Your task to perform on an android device: change the clock display to show seconds Image 0: 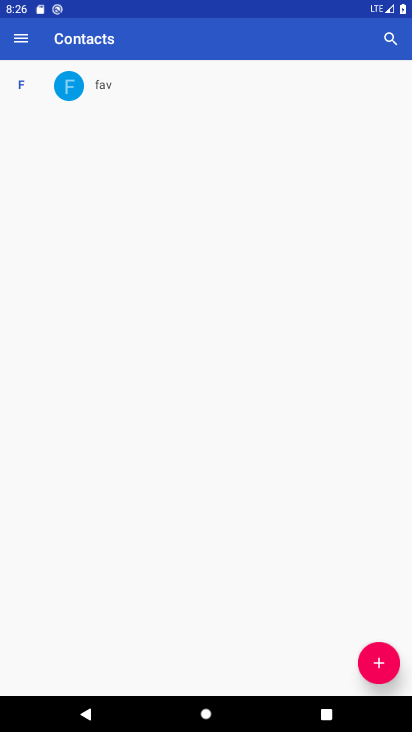
Step 0: press home button
Your task to perform on an android device: change the clock display to show seconds Image 1: 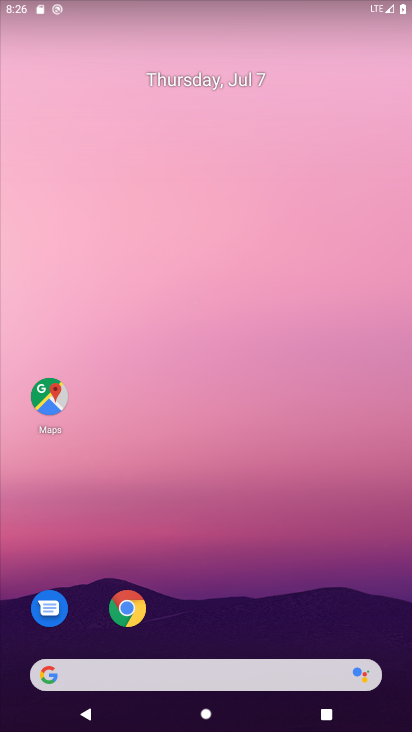
Step 1: drag from (373, 617) to (353, 67)
Your task to perform on an android device: change the clock display to show seconds Image 2: 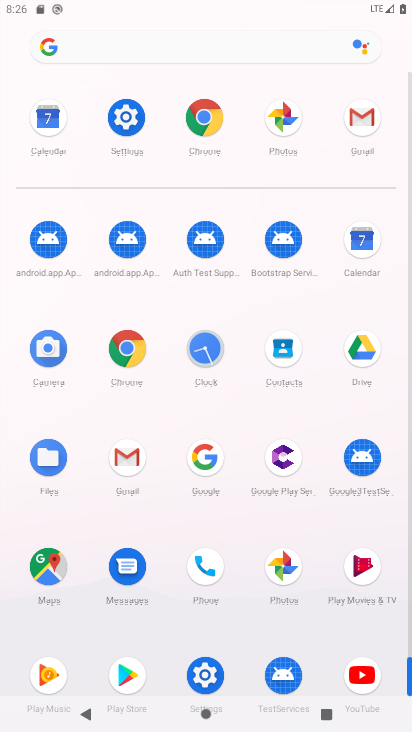
Step 2: click (208, 353)
Your task to perform on an android device: change the clock display to show seconds Image 3: 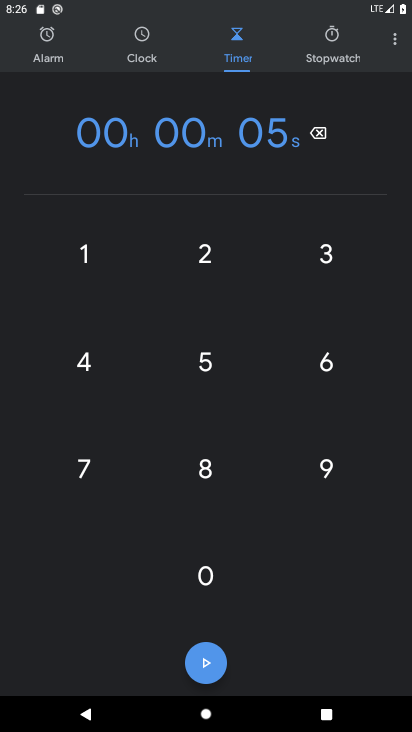
Step 3: click (391, 39)
Your task to perform on an android device: change the clock display to show seconds Image 4: 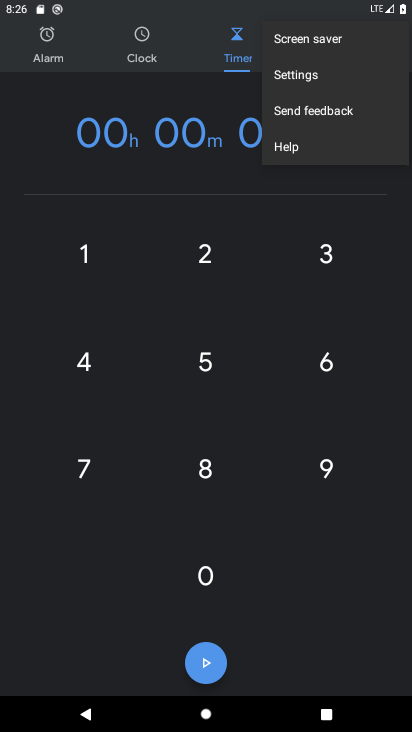
Step 4: click (341, 77)
Your task to perform on an android device: change the clock display to show seconds Image 5: 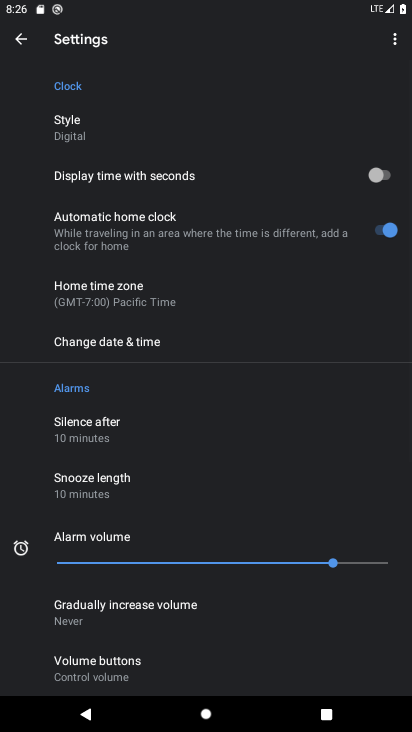
Step 5: drag from (293, 345) to (299, 273)
Your task to perform on an android device: change the clock display to show seconds Image 6: 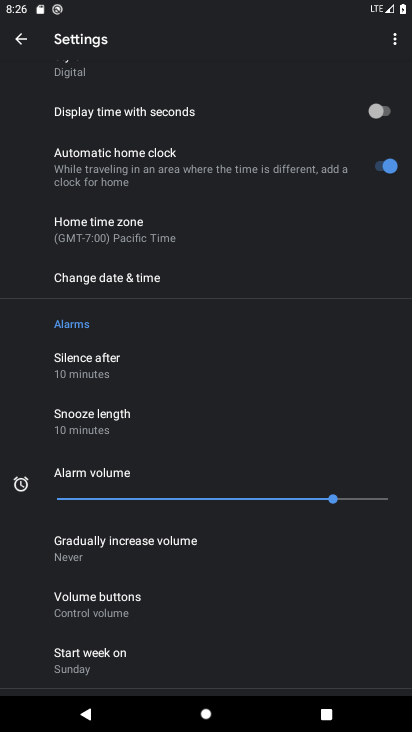
Step 6: drag from (296, 394) to (300, 302)
Your task to perform on an android device: change the clock display to show seconds Image 7: 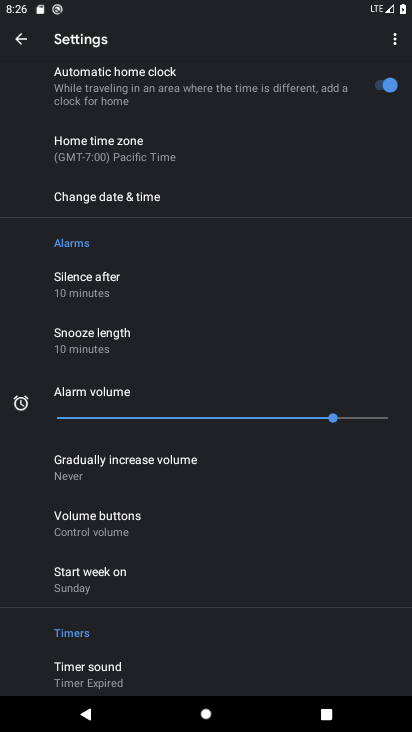
Step 7: drag from (307, 445) to (310, 368)
Your task to perform on an android device: change the clock display to show seconds Image 8: 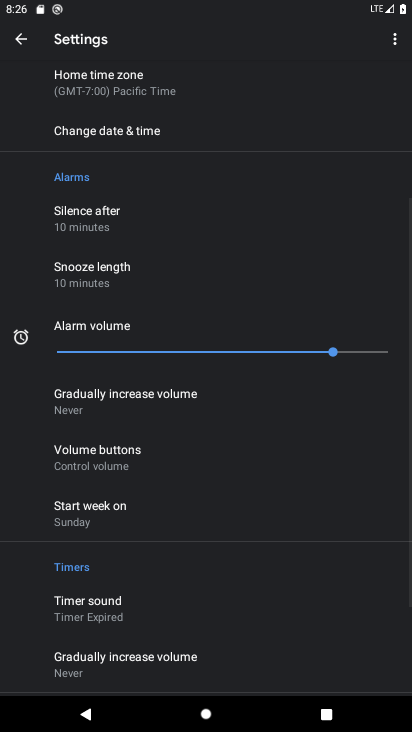
Step 8: drag from (310, 453) to (308, 361)
Your task to perform on an android device: change the clock display to show seconds Image 9: 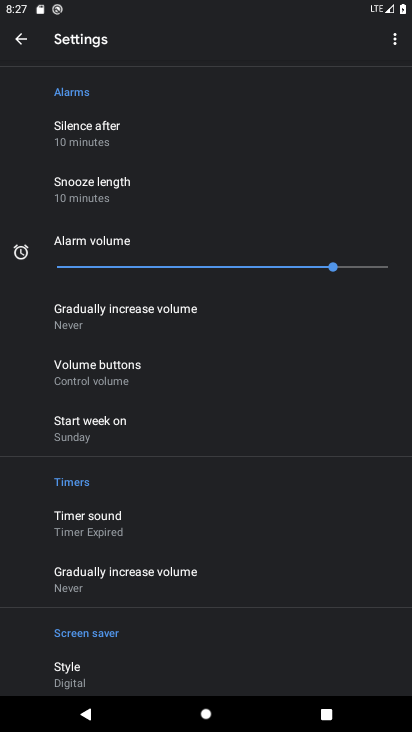
Step 9: drag from (318, 489) to (312, 394)
Your task to perform on an android device: change the clock display to show seconds Image 10: 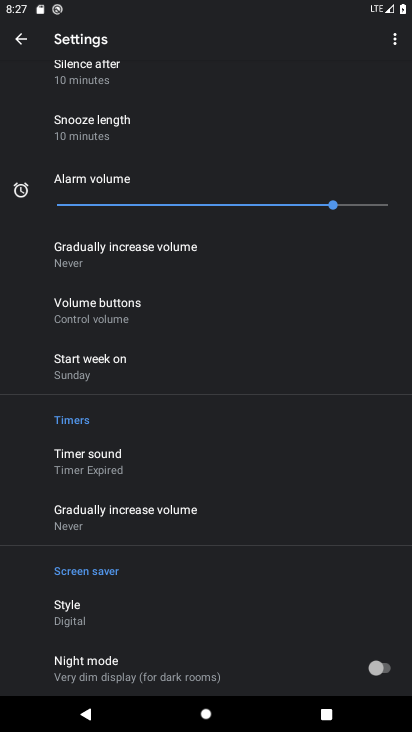
Step 10: drag from (309, 491) to (312, 362)
Your task to perform on an android device: change the clock display to show seconds Image 11: 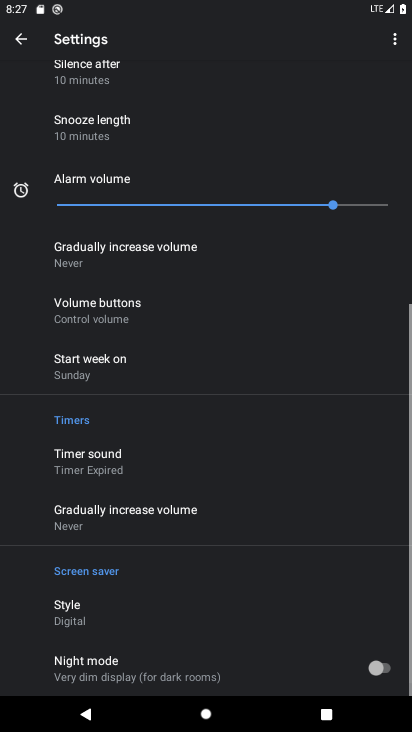
Step 11: drag from (312, 293) to (313, 370)
Your task to perform on an android device: change the clock display to show seconds Image 12: 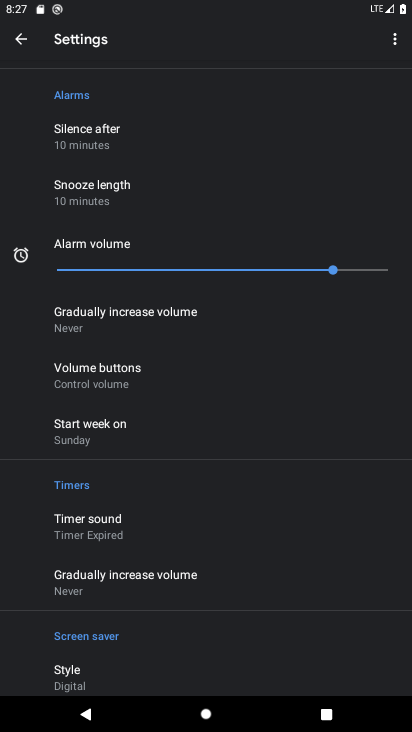
Step 12: drag from (313, 326) to (311, 399)
Your task to perform on an android device: change the clock display to show seconds Image 13: 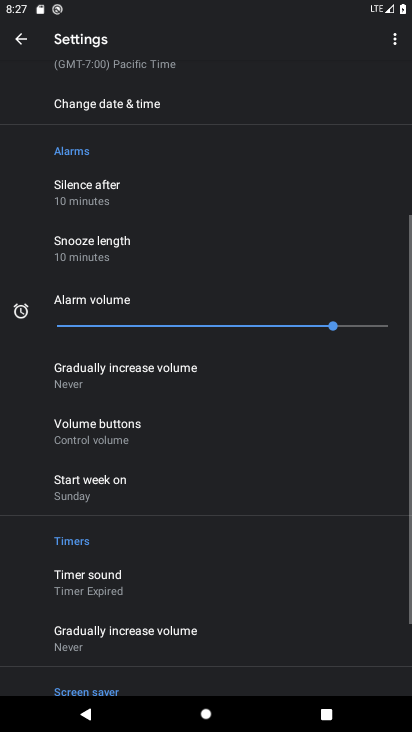
Step 13: drag from (319, 293) to (313, 385)
Your task to perform on an android device: change the clock display to show seconds Image 14: 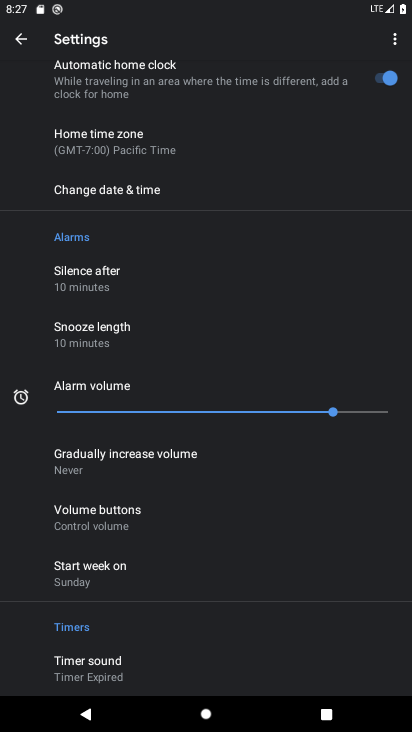
Step 14: drag from (310, 290) to (311, 395)
Your task to perform on an android device: change the clock display to show seconds Image 15: 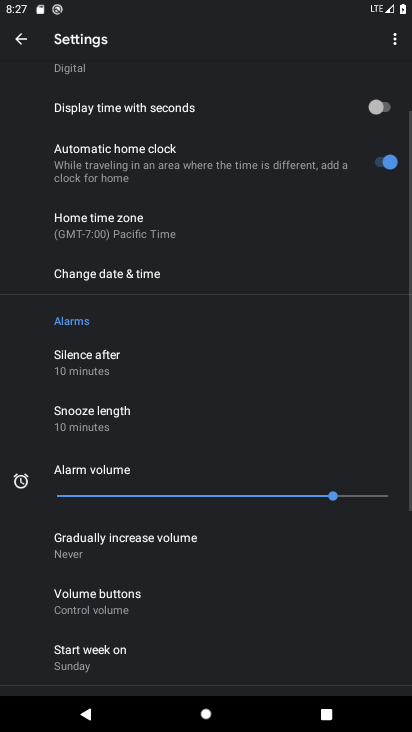
Step 15: drag from (313, 286) to (322, 415)
Your task to perform on an android device: change the clock display to show seconds Image 16: 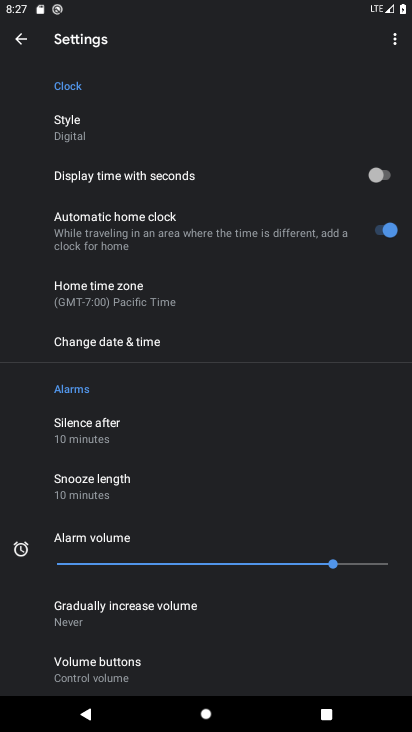
Step 16: drag from (317, 341) to (323, 403)
Your task to perform on an android device: change the clock display to show seconds Image 17: 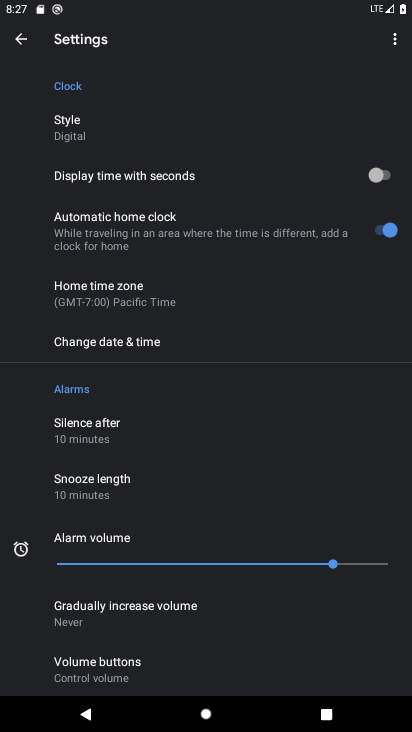
Step 17: click (379, 173)
Your task to perform on an android device: change the clock display to show seconds Image 18: 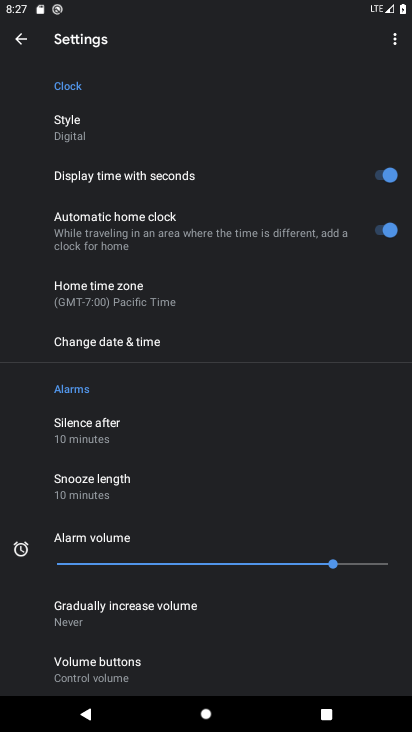
Step 18: task complete